Your task to perform on an android device: Go to Android settings Image 0: 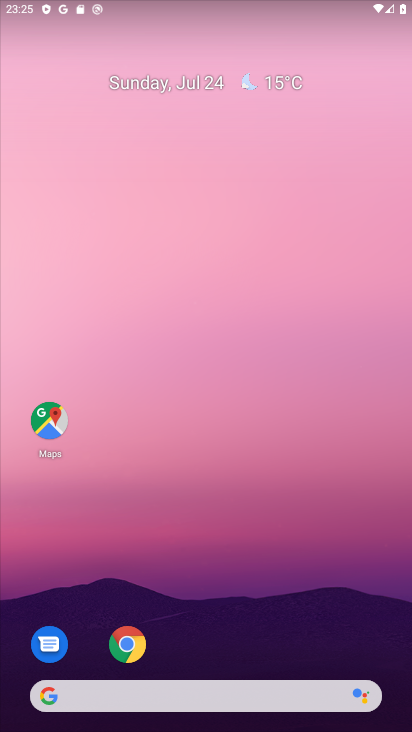
Step 0: drag from (220, 723) to (220, 255)
Your task to perform on an android device: Go to Android settings Image 1: 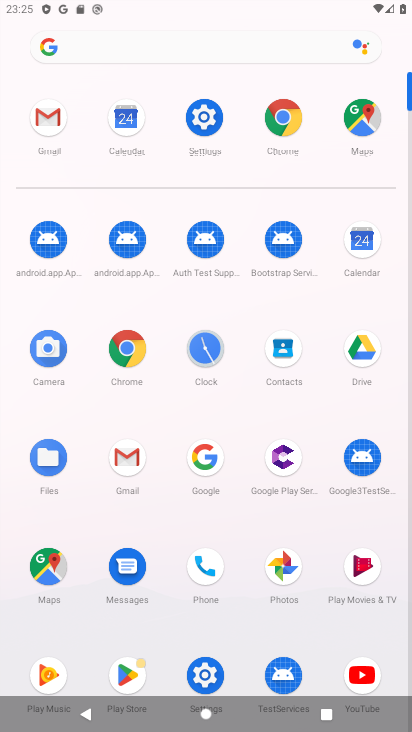
Step 1: click (200, 117)
Your task to perform on an android device: Go to Android settings Image 2: 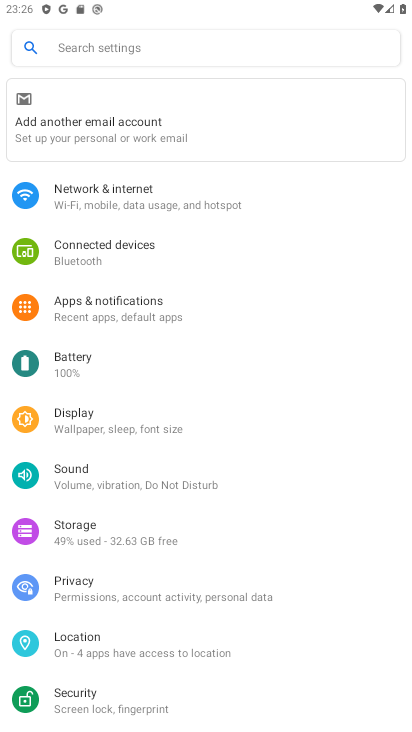
Step 2: task complete